Your task to perform on an android device: Open Google Maps and go to "Timeline" Image 0: 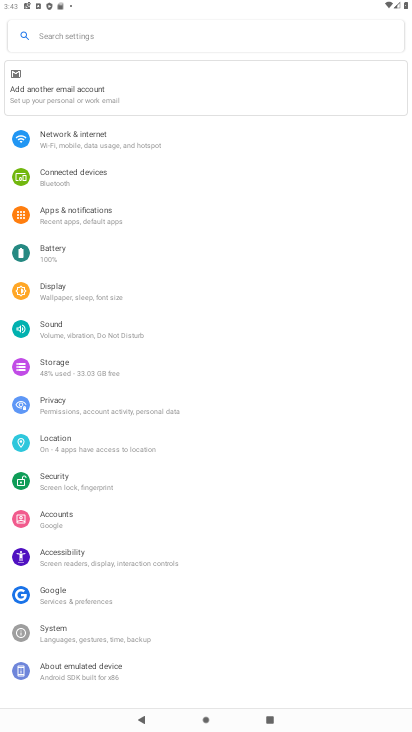
Step 0: press home button
Your task to perform on an android device: Open Google Maps and go to "Timeline" Image 1: 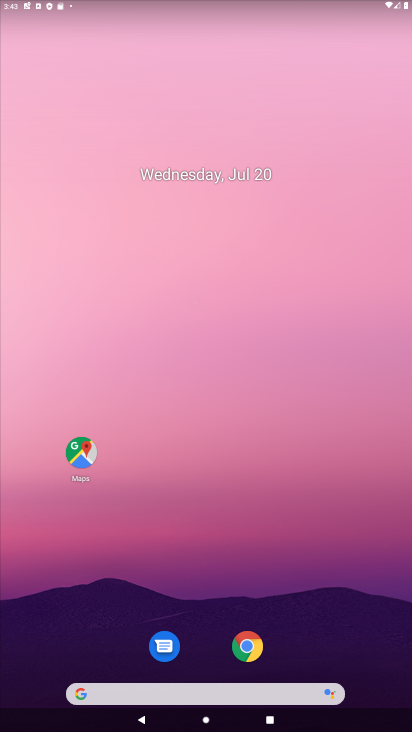
Step 1: click (78, 461)
Your task to perform on an android device: Open Google Maps and go to "Timeline" Image 2: 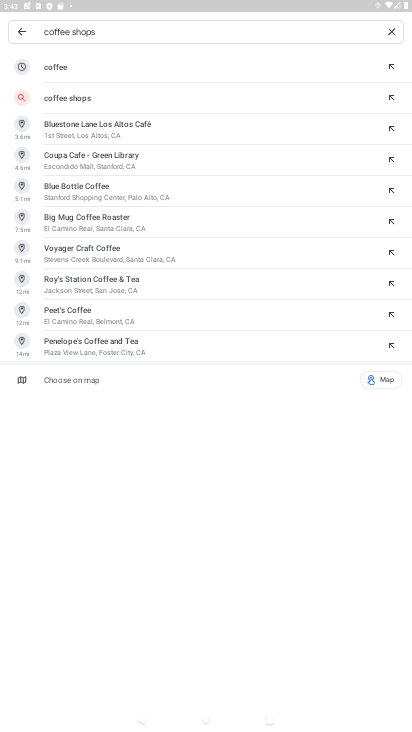
Step 2: click (24, 29)
Your task to perform on an android device: Open Google Maps and go to "Timeline" Image 3: 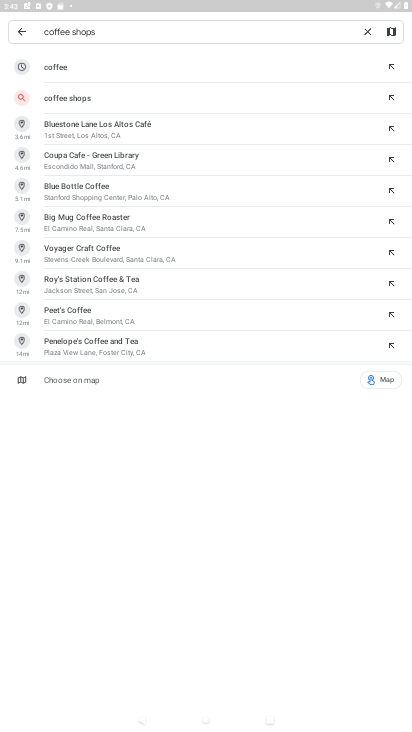
Step 3: click (23, 28)
Your task to perform on an android device: Open Google Maps and go to "Timeline" Image 4: 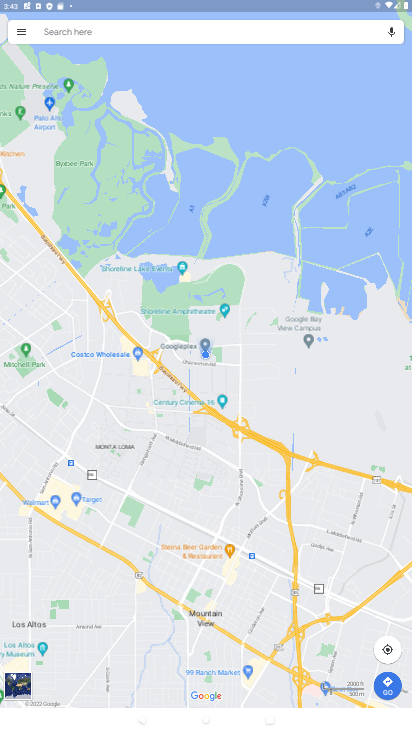
Step 4: click (20, 36)
Your task to perform on an android device: Open Google Maps and go to "Timeline" Image 5: 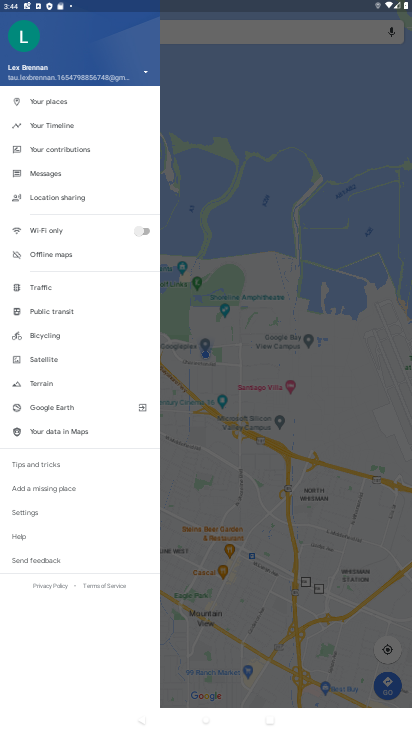
Step 5: click (85, 123)
Your task to perform on an android device: Open Google Maps and go to "Timeline" Image 6: 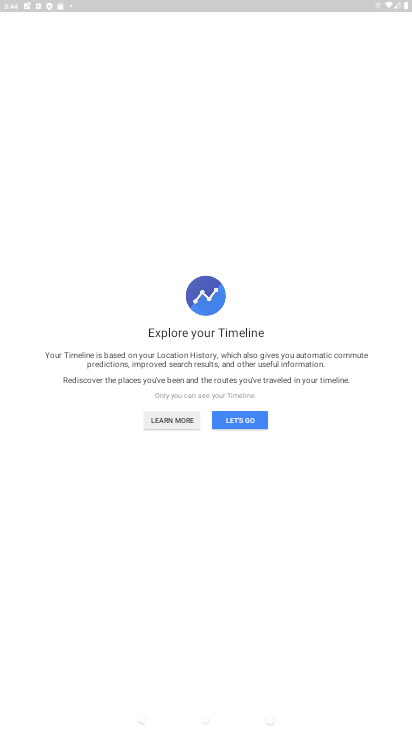
Step 6: click (256, 409)
Your task to perform on an android device: Open Google Maps and go to "Timeline" Image 7: 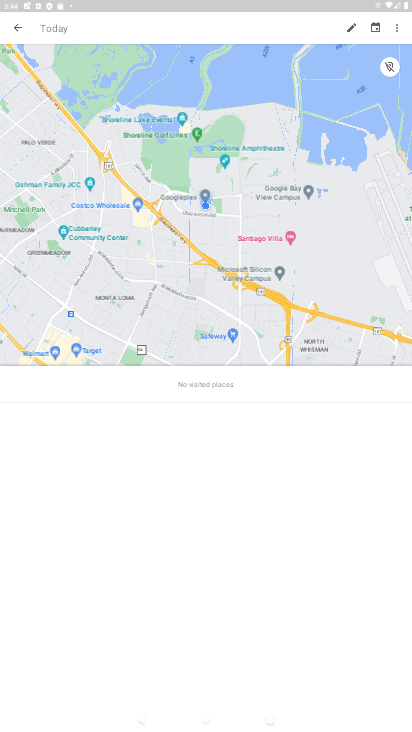
Step 7: task complete